Your task to perform on an android device: Open Youtube and go to "Your channel" Image 0: 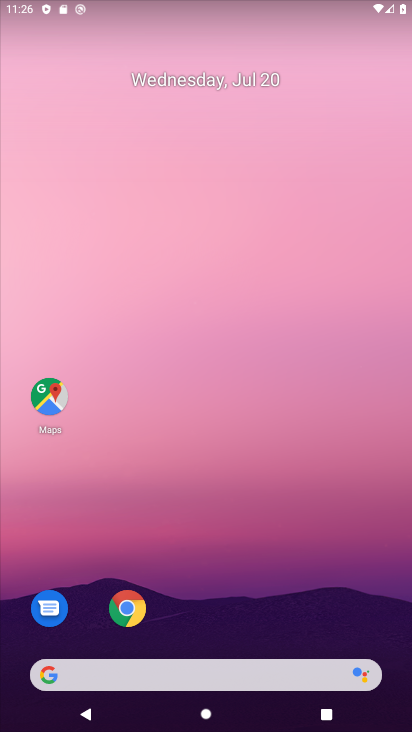
Step 0: drag from (360, 613) to (137, 64)
Your task to perform on an android device: Open Youtube and go to "Your channel" Image 1: 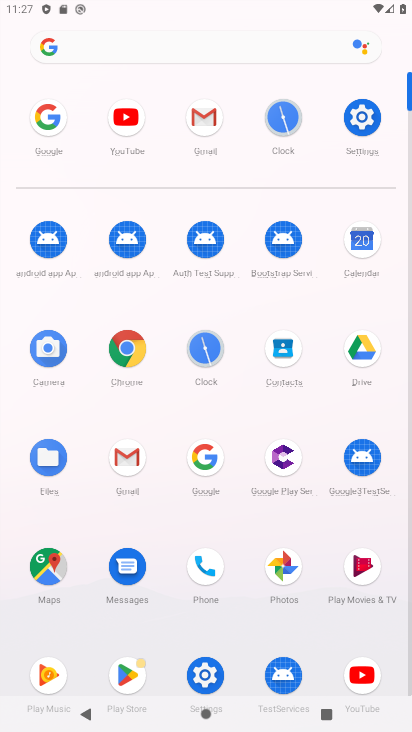
Step 1: click (349, 657)
Your task to perform on an android device: Open Youtube and go to "Your channel" Image 2: 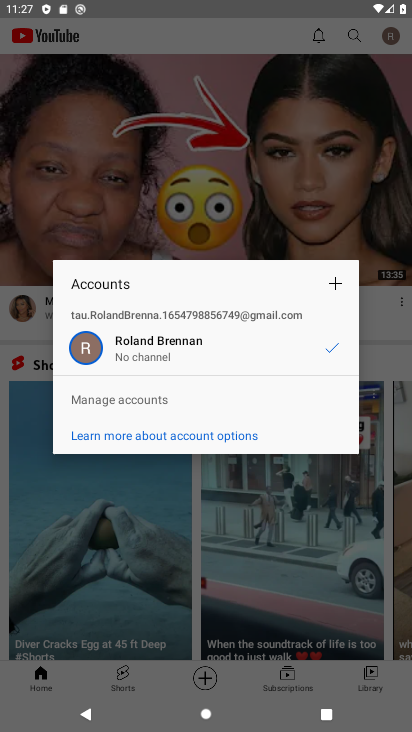
Step 2: press back button
Your task to perform on an android device: Open Youtube and go to "Your channel" Image 3: 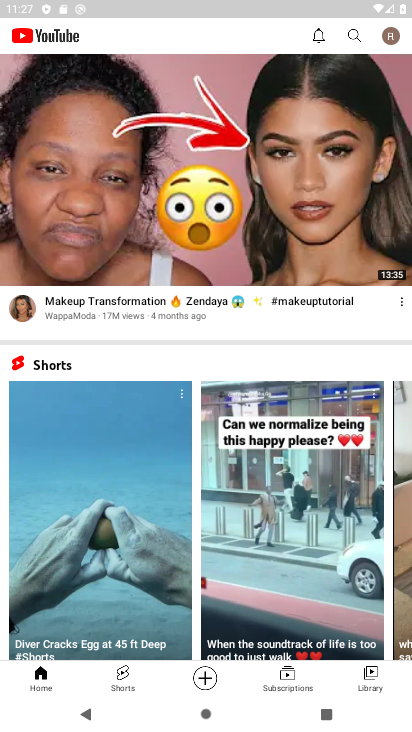
Step 3: click (387, 33)
Your task to perform on an android device: Open Youtube and go to "Your channel" Image 4: 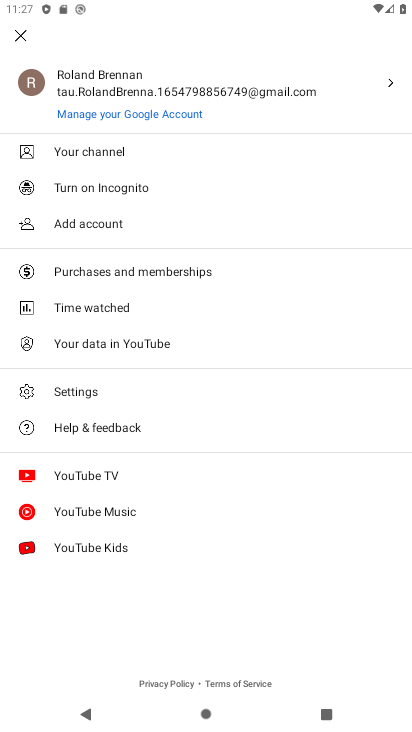
Step 4: click (68, 143)
Your task to perform on an android device: Open Youtube and go to "Your channel" Image 5: 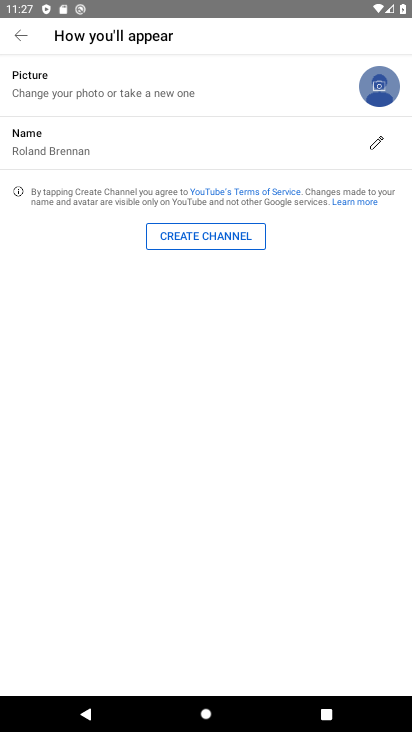
Step 5: task complete